Your task to perform on an android device: check battery use Image 0: 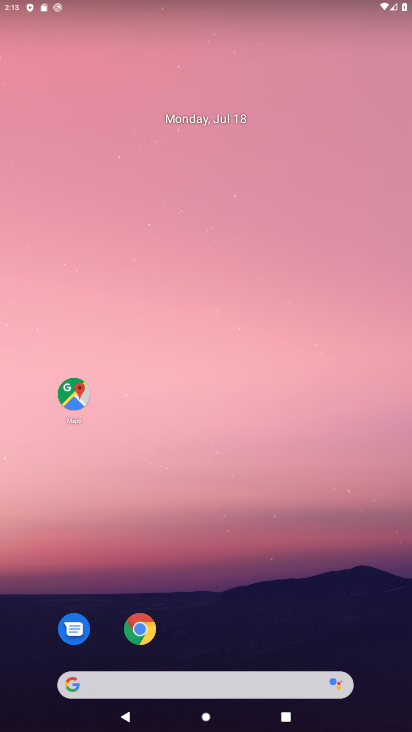
Step 0: drag from (188, 634) to (185, 232)
Your task to perform on an android device: check battery use Image 1: 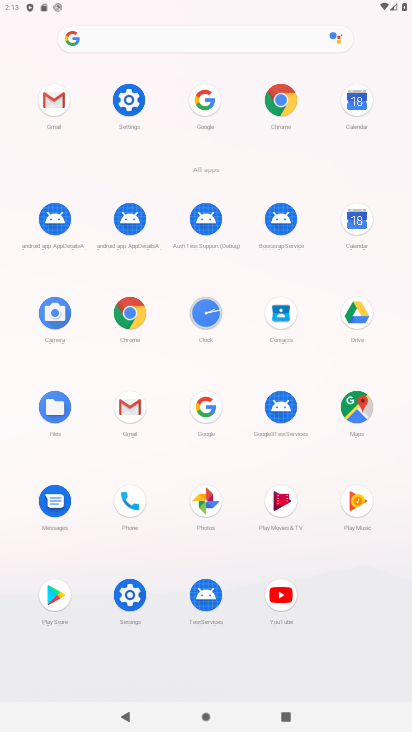
Step 1: click (138, 106)
Your task to perform on an android device: check battery use Image 2: 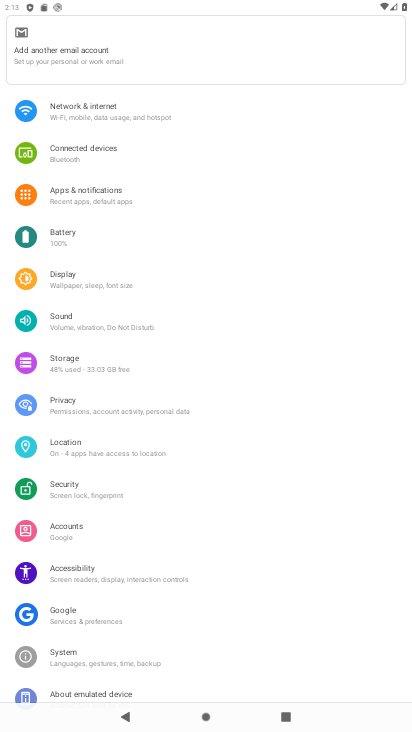
Step 2: click (95, 242)
Your task to perform on an android device: check battery use Image 3: 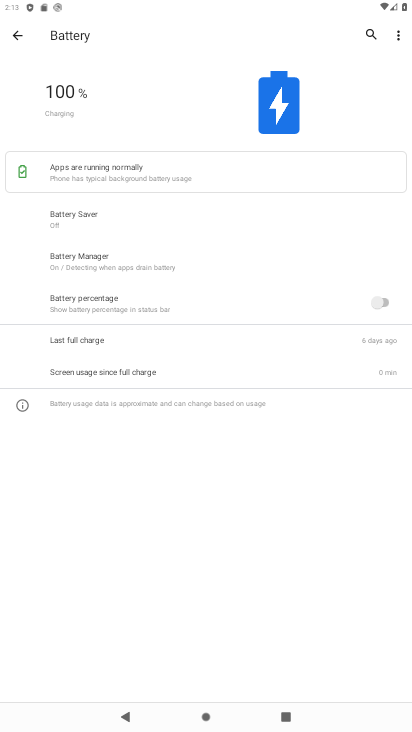
Step 3: click (400, 39)
Your task to perform on an android device: check battery use Image 4: 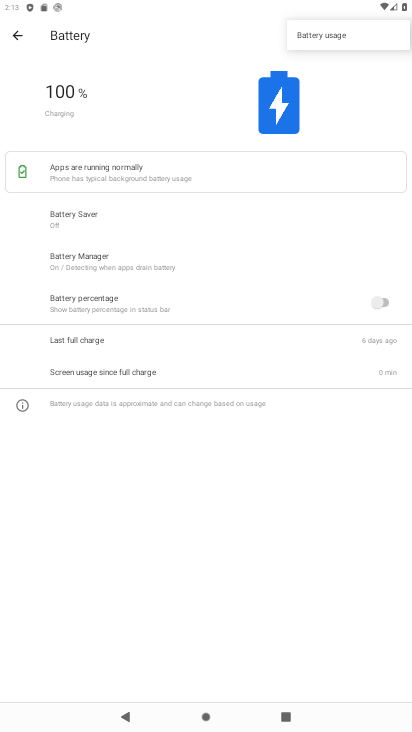
Step 4: click (333, 43)
Your task to perform on an android device: check battery use Image 5: 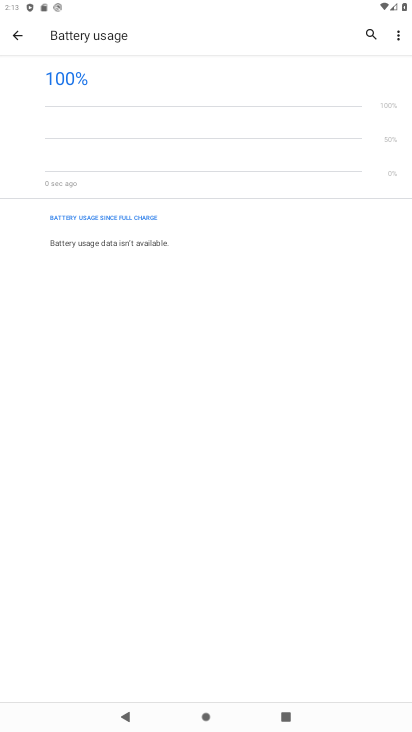
Step 5: task complete